Your task to perform on an android device: Go to display settings Image 0: 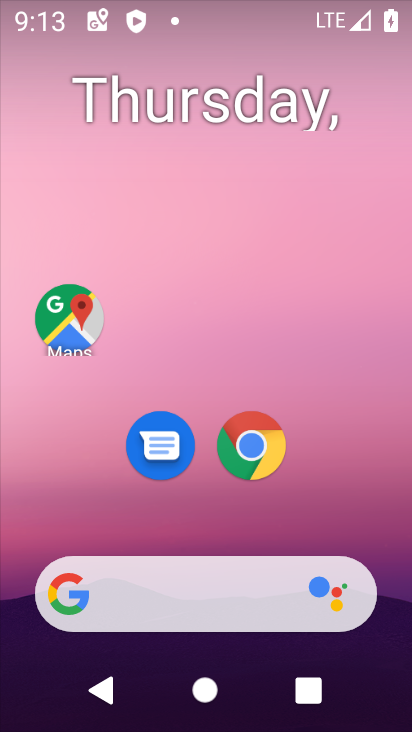
Step 0: drag from (257, 135) to (257, 34)
Your task to perform on an android device: Go to display settings Image 1: 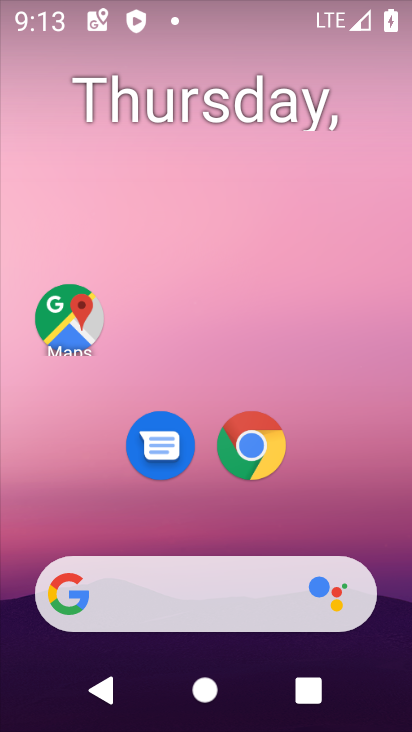
Step 1: drag from (190, 515) to (262, 43)
Your task to perform on an android device: Go to display settings Image 2: 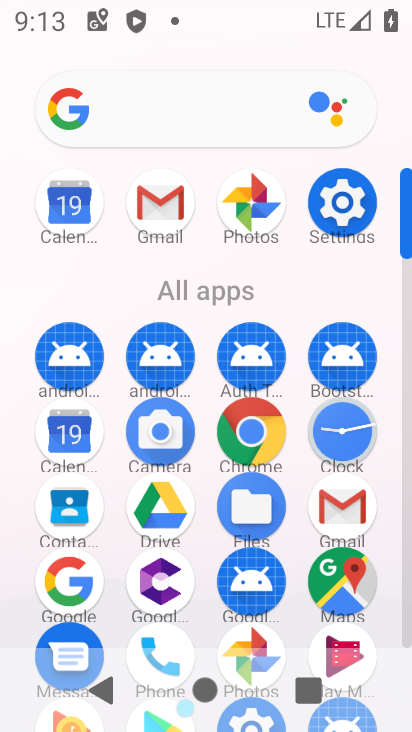
Step 2: click (339, 183)
Your task to perform on an android device: Go to display settings Image 3: 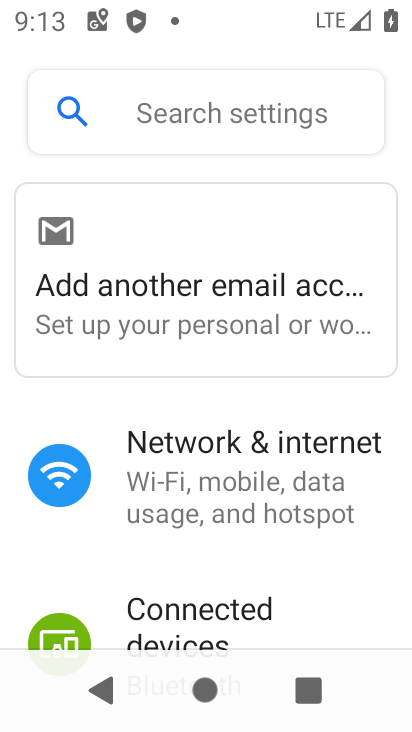
Step 3: drag from (135, 626) to (278, 168)
Your task to perform on an android device: Go to display settings Image 4: 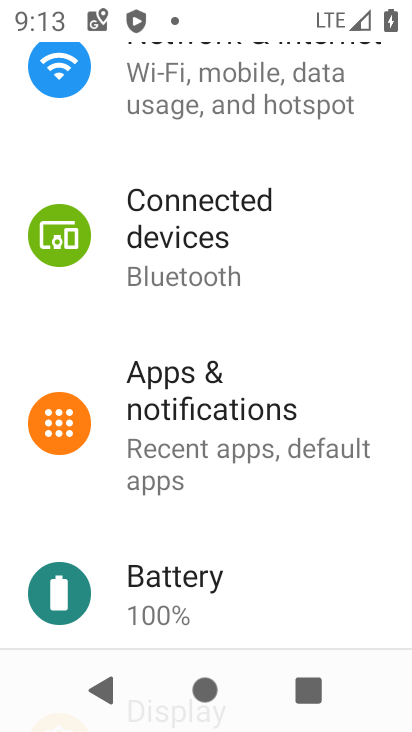
Step 4: drag from (191, 552) to (292, 175)
Your task to perform on an android device: Go to display settings Image 5: 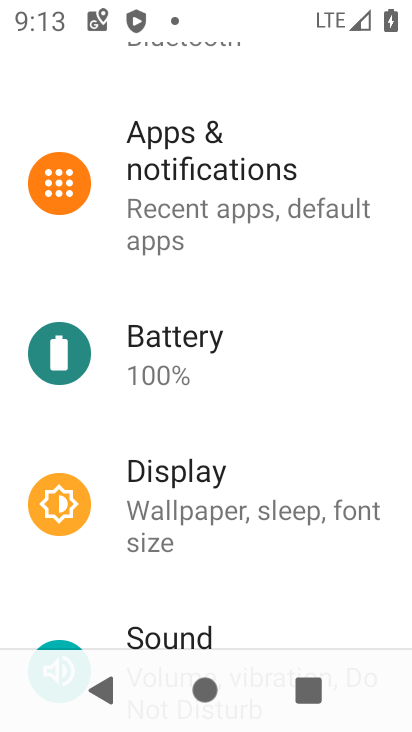
Step 5: click (244, 494)
Your task to perform on an android device: Go to display settings Image 6: 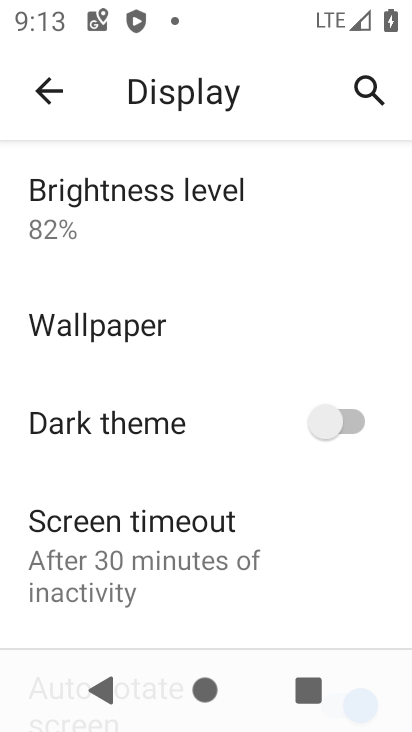
Step 6: task complete